Your task to perform on an android device: empty trash in google photos Image 0: 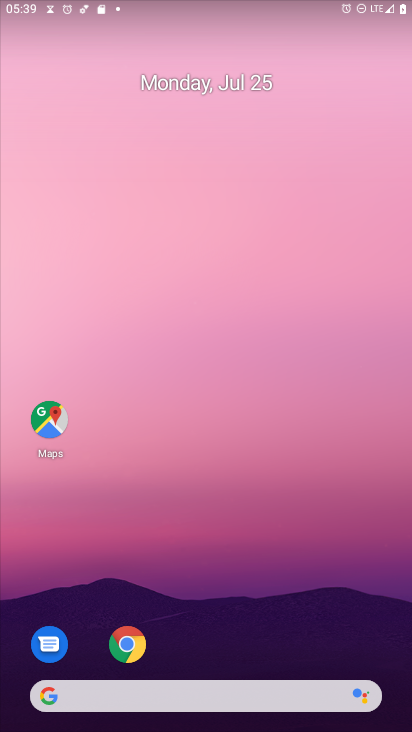
Step 0: drag from (227, 657) to (229, 108)
Your task to perform on an android device: empty trash in google photos Image 1: 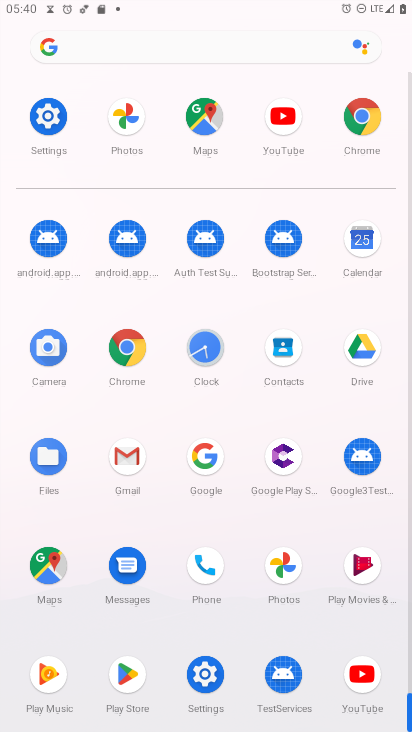
Step 1: click (282, 572)
Your task to perform on an android device: empty trash in google photos Image 2: 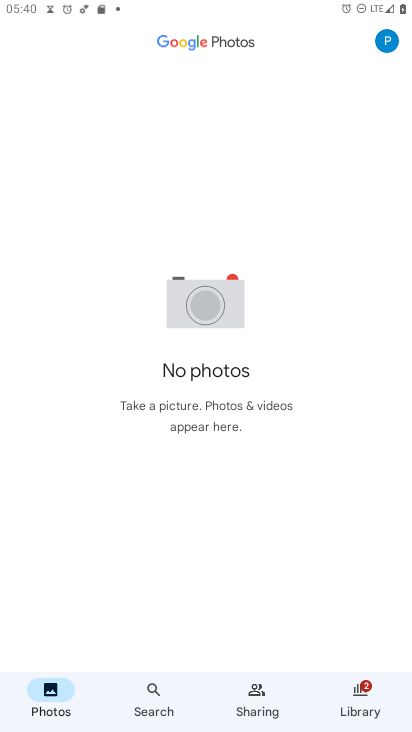
Step 2: click (364, 712)
Your task to perform on an android device: empty trash in google photos Image 3: 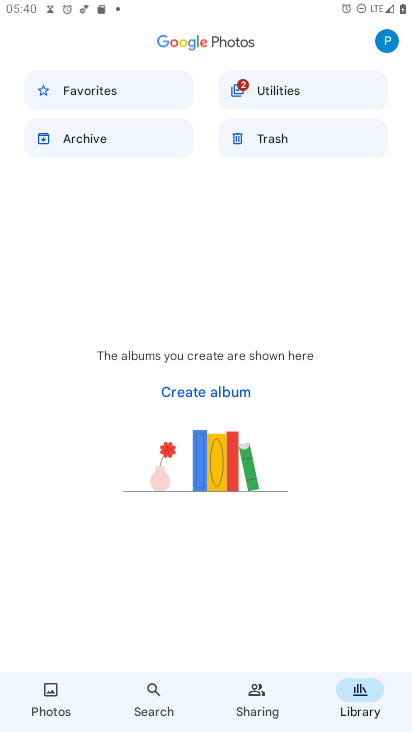
Step 3: click (249, 136)
Your task to perform on an android device: empty trash in google photos Image 4: 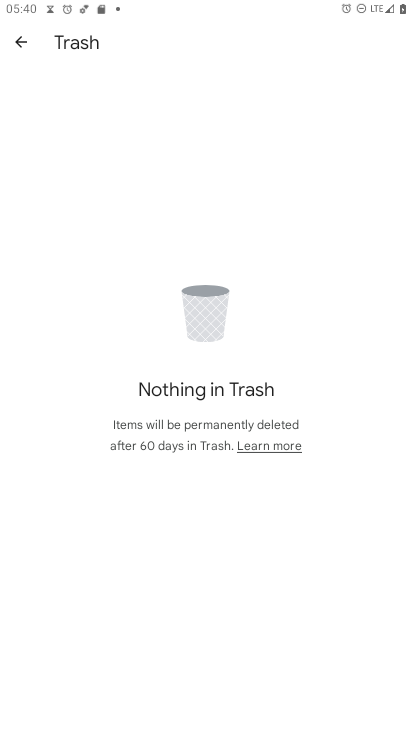
Step 4: task complete